Your task to perform on an android device: Open the stopwatch Image 0: 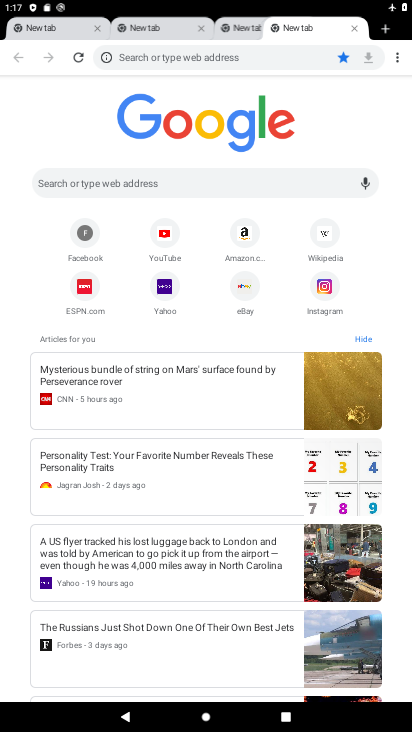
Step 0: drag from (36, 707) to (182, 267)
Your task to perform on an android device: Open the stopwatch Image 1: 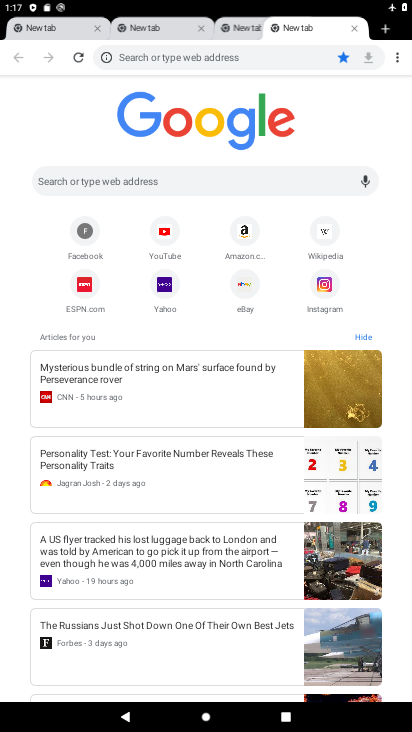
Step 1: press home button
Your task to perform on an android device: Open the stopwatch Image 2: 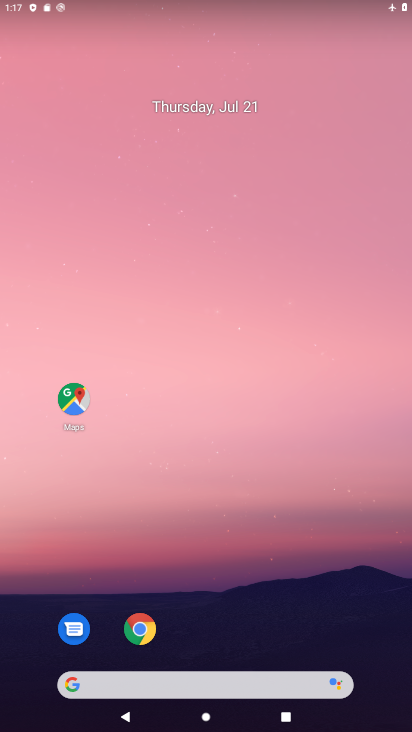
Step 2: drag from (30, 678) to (180, 150)
Your task to perform on an android device: Open the stopwatch Image 3: 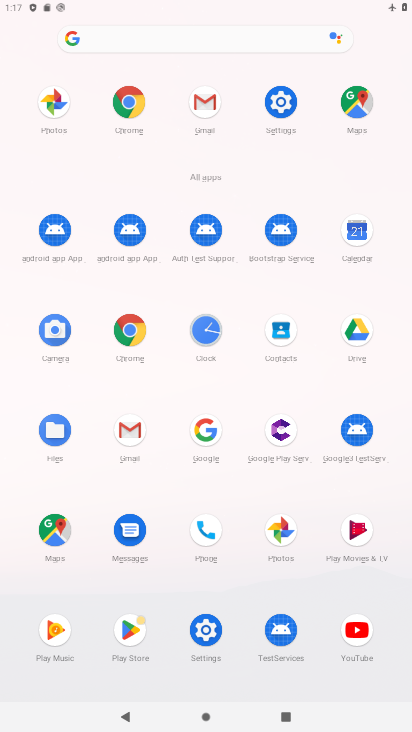
Step 3: click (206, 337)
Your task to perform on an android device: Open the stopwatch Image 4: 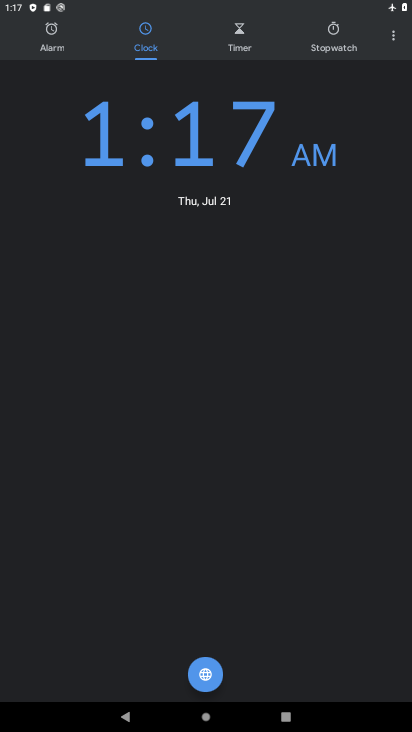
Step 4: click (336, 28)
Your task to perform on an android device: Open the stopwatch Image 5: 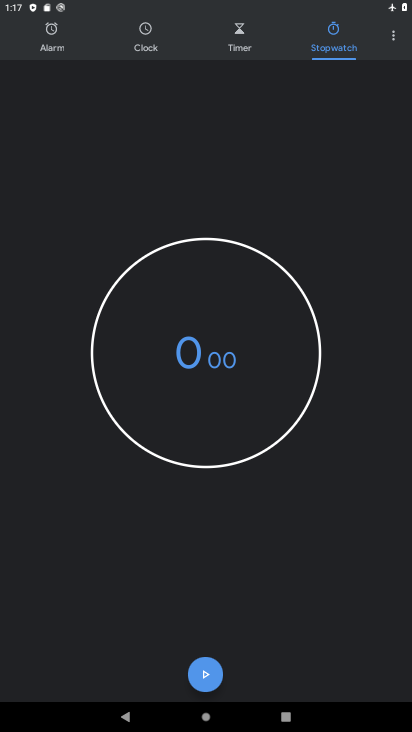
Step 5: click (196, 678)
Your task to perform on an android device: Open the stopwatch Image 6: 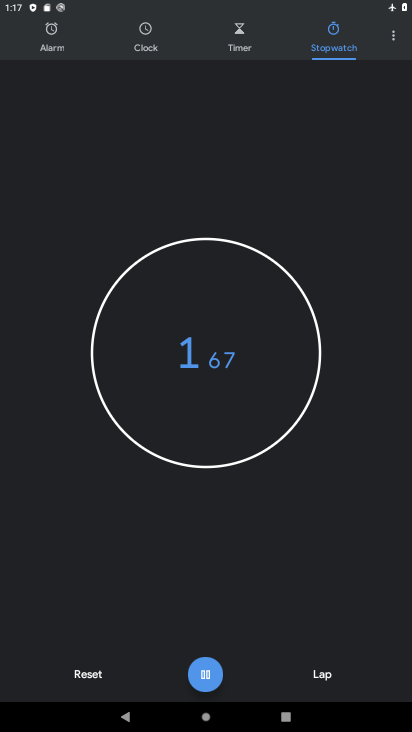
Step 6: click (205, 680)
Your task to perform on an android device: Open the stopwatch Image 7: 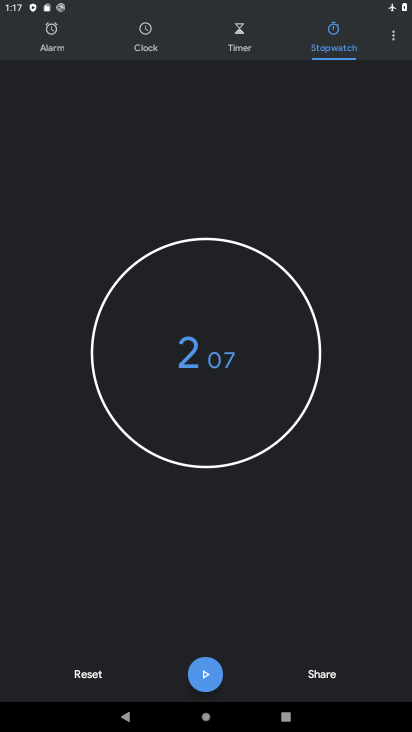
Step 7: task complete